Your task to perform on an android device: open the mobile data screen to see how much data has been used Image 0: 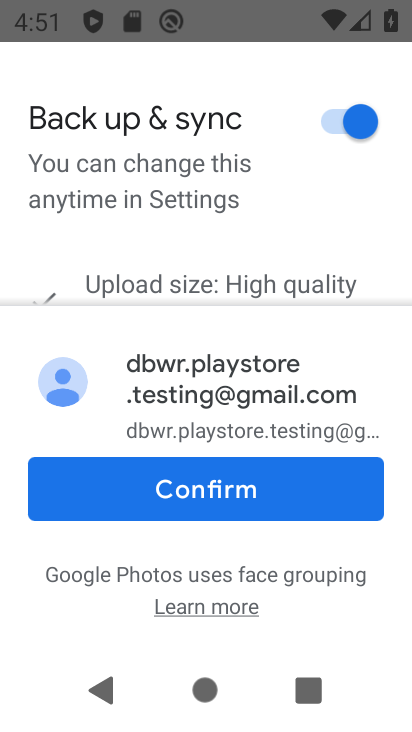
Step 0: press home button
Your task to perform on an android device: open the mobile data screen to see how much data has been used Image 1: 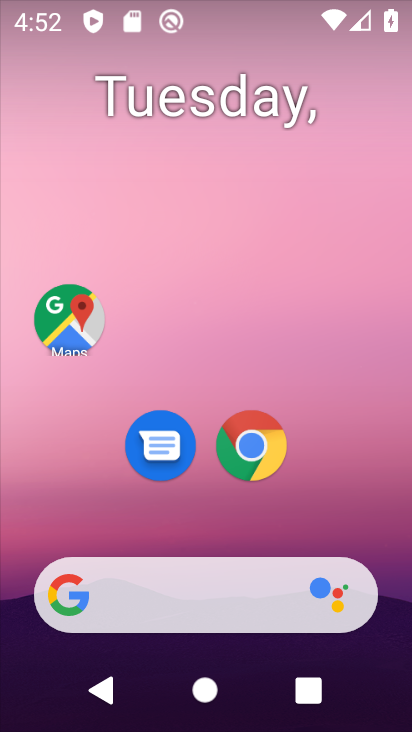
Step 1: drag from (249, 102) to (239, 624)
Your task to perform on an android device: open the mobile data screen to see how much data has been used Image 2: 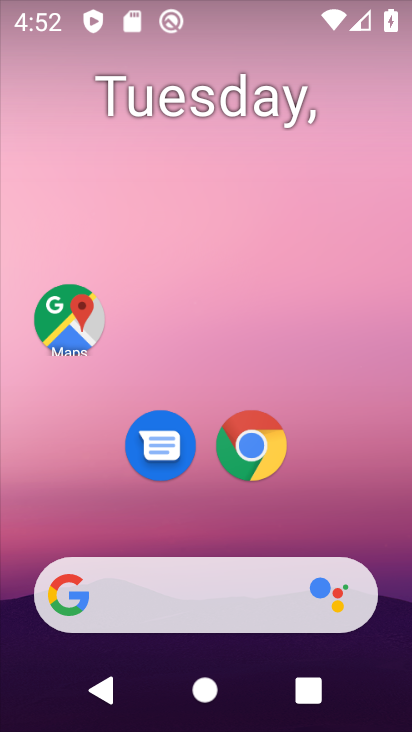
Step 2: drag from (275, 4) to (279, 398)
Your task to perform on an android device: open the mobile data screen to see how much data has been used Image 3: 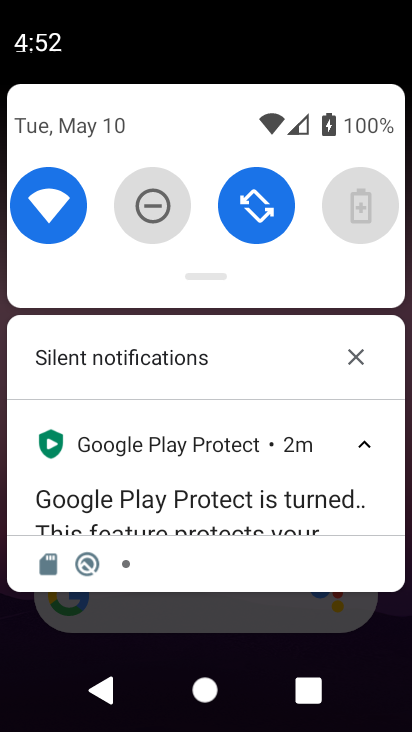
Step 3: drag from (285, 249) to (279, 605)
Your task to perform on an android device: open the mobile data screen to see how much data has been used Image 4: 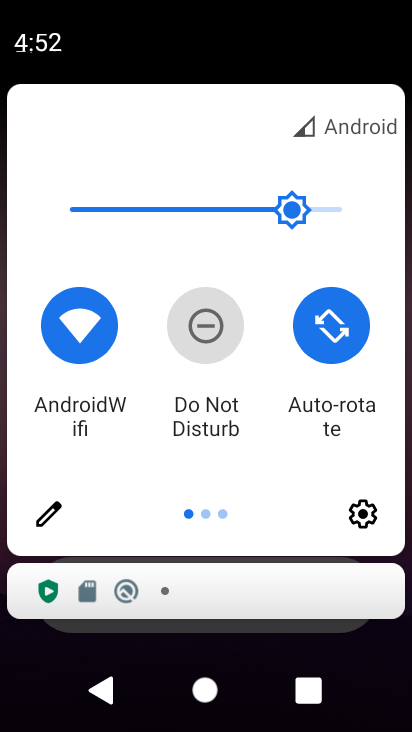
Step 4: drag from (329, 276) to (25, 235)
Your task to perform on an android device: open the mobile data screen to see how much data has been used Image 5: 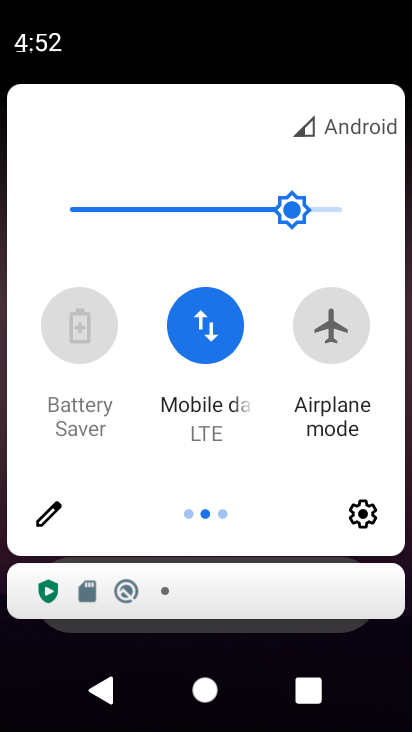
Step 5: click (200, 319)
Your task to perform on an android device: open the mobile data screen to see how much data has been used Image 6: 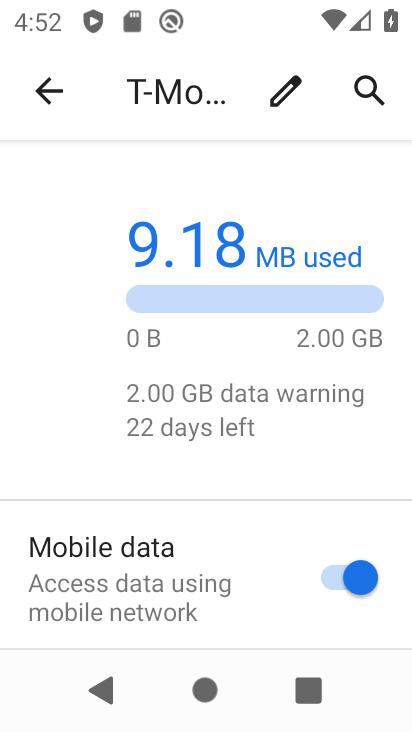
Step 6: task complete